Your task to perform on an android device: turn notification dots on Image 0: 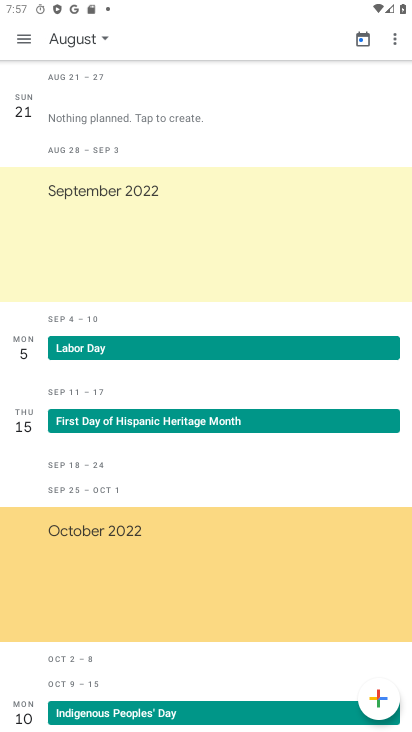
Step 0: press home button
Your task to perform on an android device: turn notification dots on Image 1: 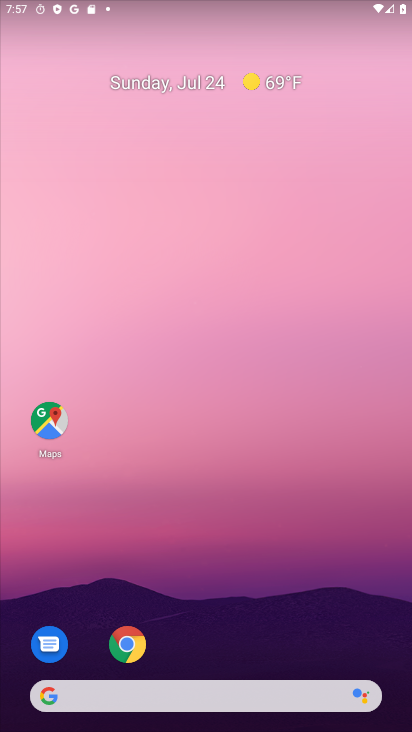
Step 1: drag from (180, 679) to (215, 312)
Your task to perform on an android device: turn notification dots on Image 2: 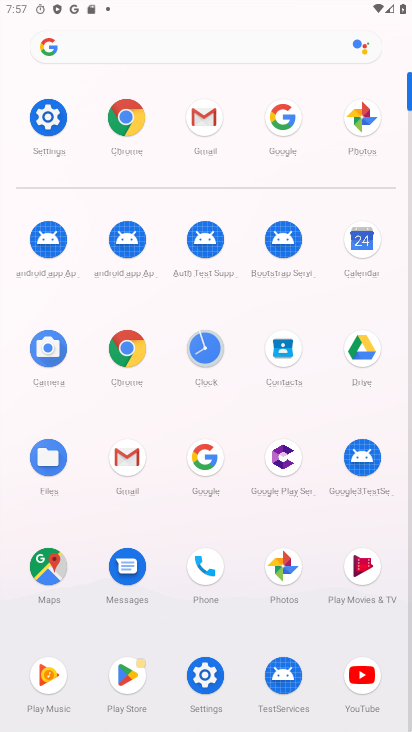
Step 2: click (55, 112)
Your task to perform on an android device: turn notification dots on Image 3: 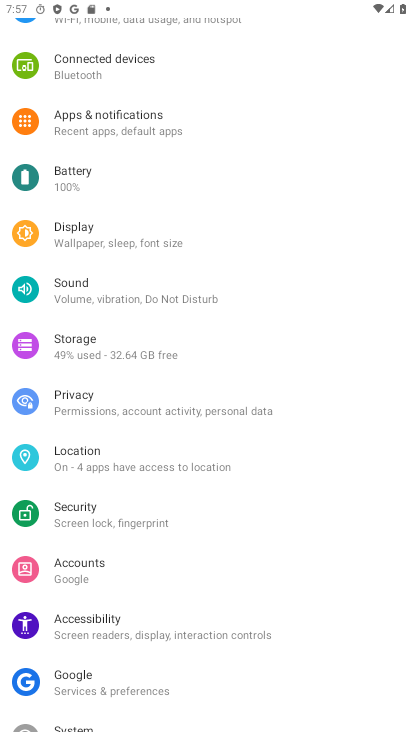
Step 3: click (110, 122)
Your task to perform on an android device: turn notification dots on Image 4: 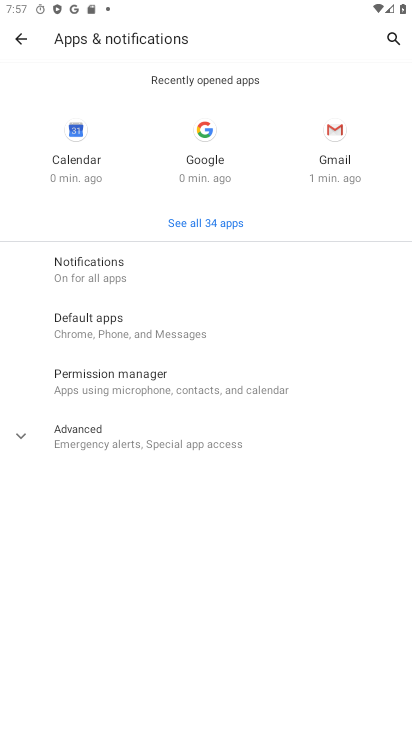
Step 4: click (114, 266)
Your task to perform on an android device: turn notification dots on Image 5: 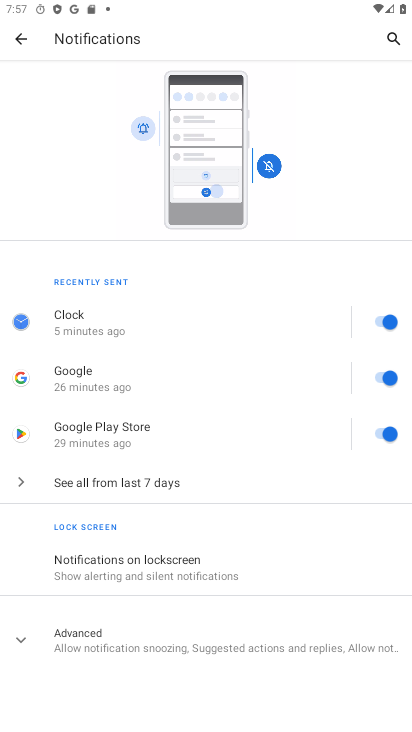
Step 5: click (112, 577)
Your task to perform on an android device: turn notification dots on Image 6: 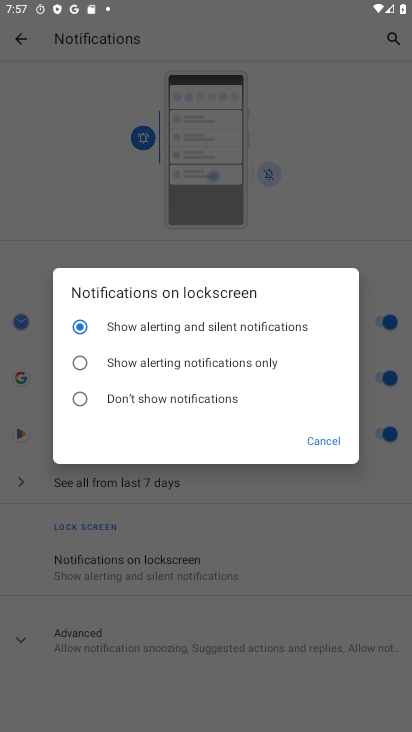
Step 6: click (327, 436)
Your task to perform on an android device: turn notification dots on Image 7: 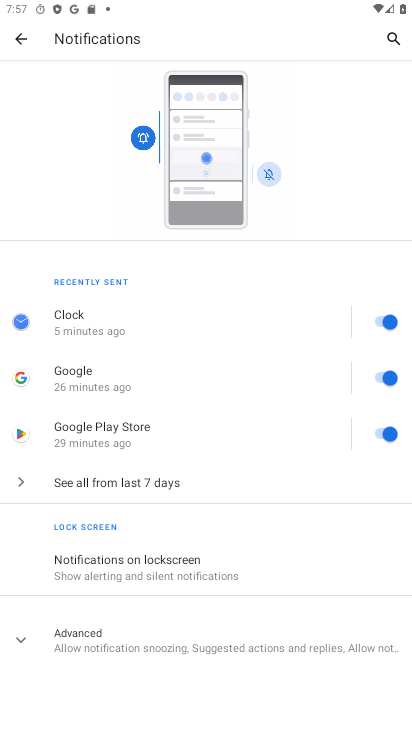
Step 7: click (88, 642)
Your task to perform on an android device: turn notification dots on Image 8: 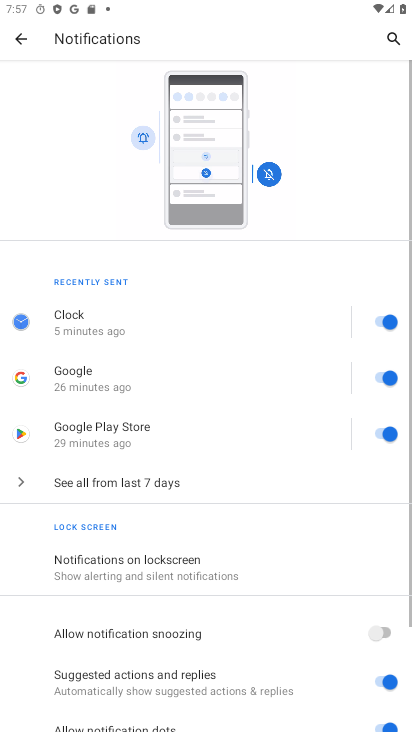
Step 8: task complete